Your task to perform on an android device: turn on bluetooth scan Image 0: 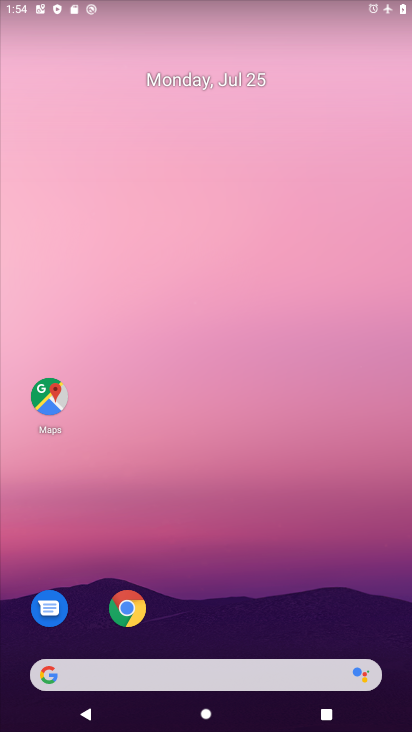
Step 0: drag from (320, 586) to (243, 50)
Your task to perform on an android device: turn on bluetooth scan Image 1: 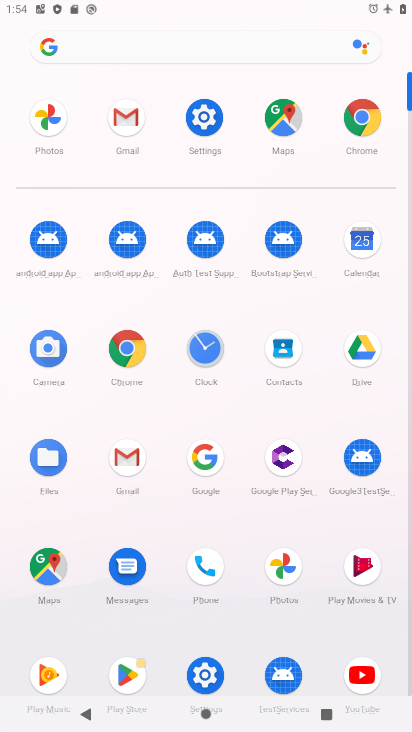
Step 1: click (212, 115)
Your task to perform on an android device: turn on bluetooth scan Image 2: 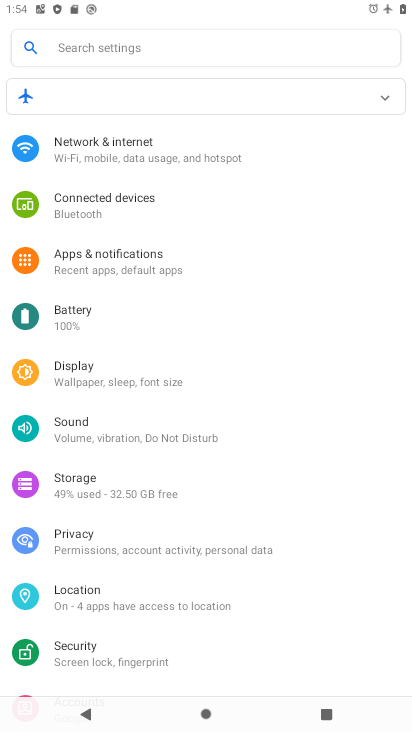
Step 2: click (129, 591)
Your task to perform on an android device: turn on bluetooth scan Image 3: 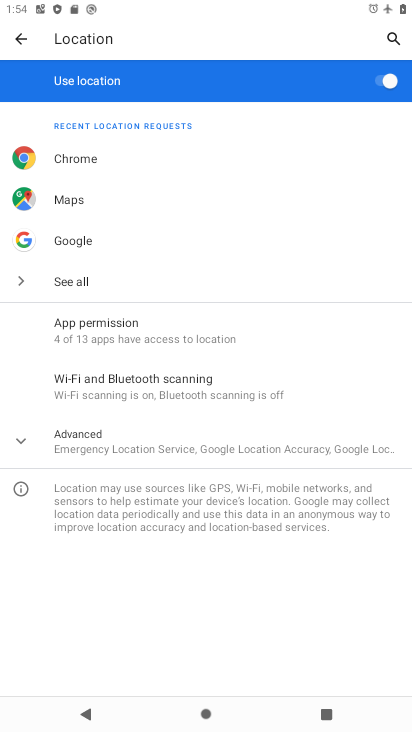
Step 3: click (153, 393)
Your task to perform on an android device: turn on bluetooth scan Image 4: 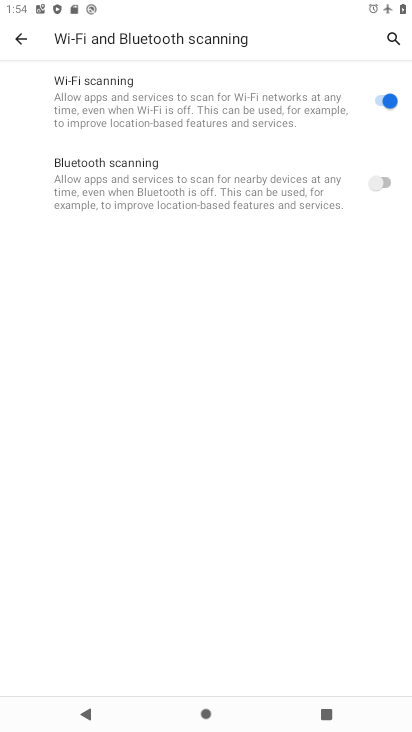
Step 4: click (358, 191)
Your task to perform on an android device: turn on bluetooth scan Image 5: 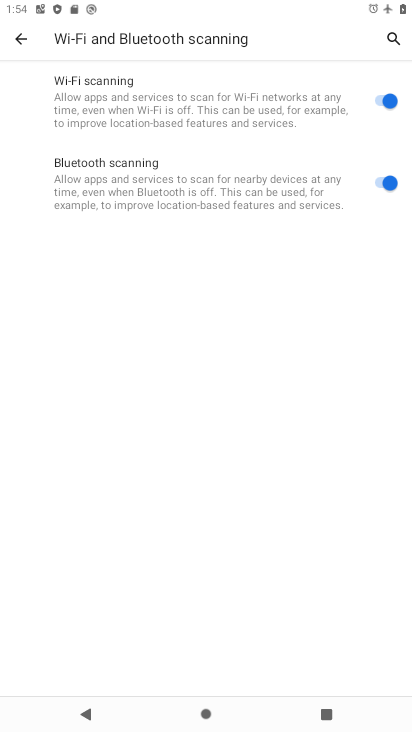
Step 5: task complete